Your task to perform on an android device: Go to Reddit.com Image 0: 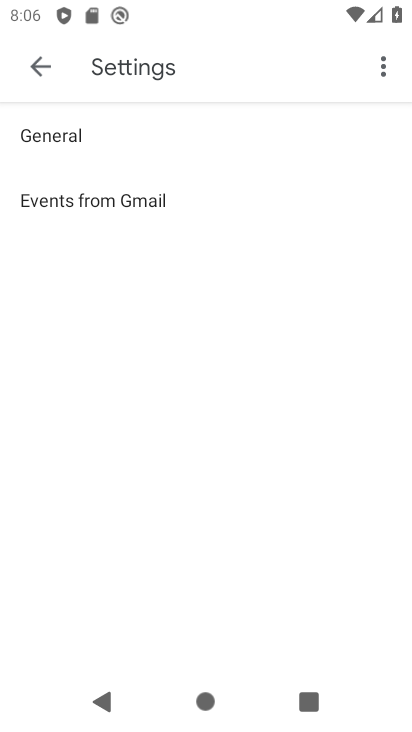
Step 0: press home button
Your task to perform on an android device: Go to Reddit.com Image 1: 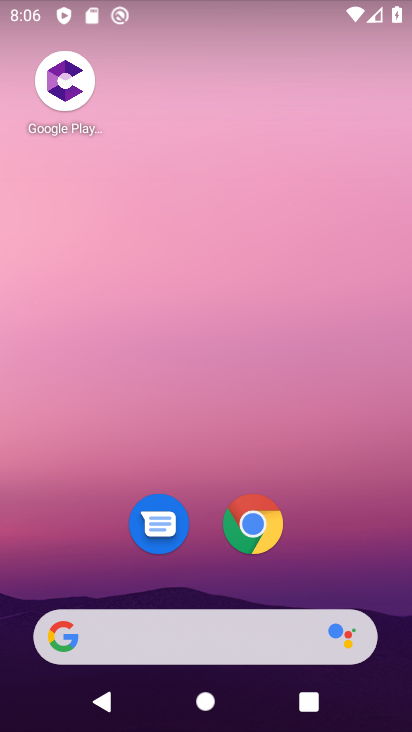
Step 1: click (224, 633)
Your task to perform on an android device: Go to Reddit.com Image 2: 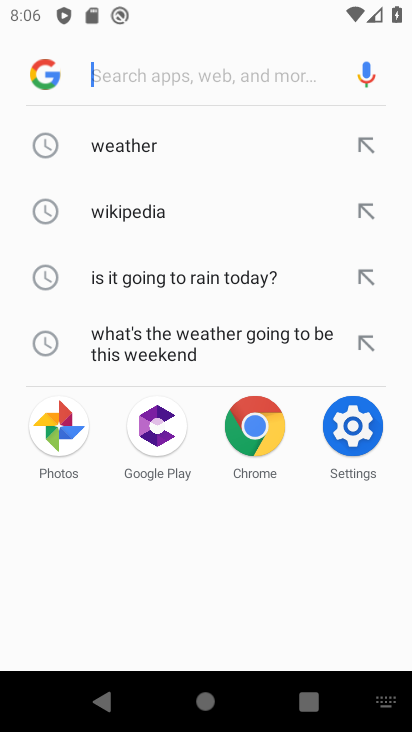
Step 2: type "reddit.com"
Your task to perform on an android device: Go to Reddit.com Image 3: 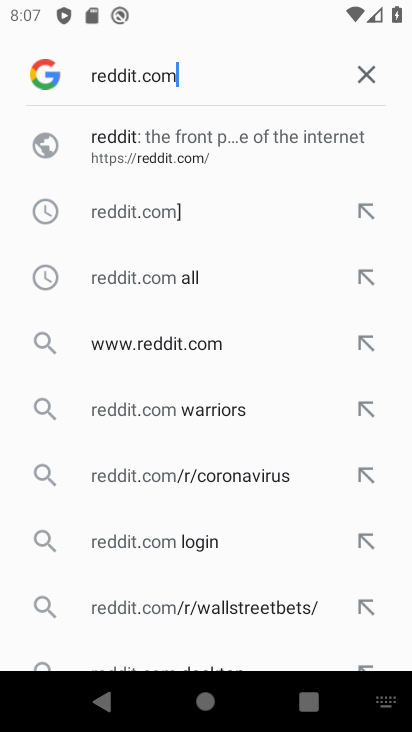
Step 3: click (192, 68)
Your task to perform on an android device: Go to Reddit.com Image 4: 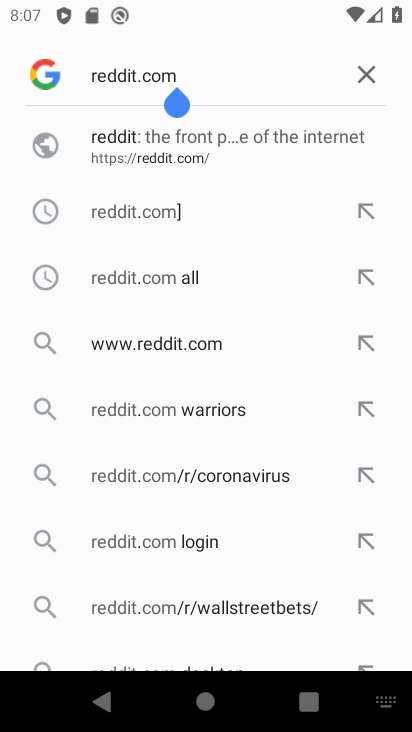
Step 4: click (104, 147)
Your task to perform on an android device: Go to Reddit.com Image 5: 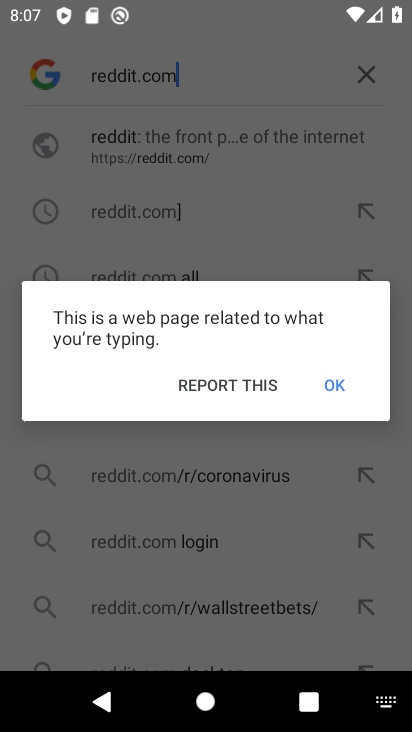
Step 5: click (336, 384)
Your task to perform on an android device: Go to Reddit.com Image 6: 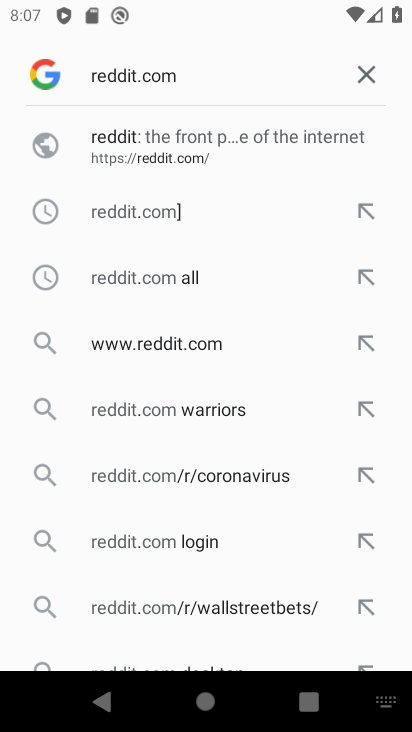
Step 6: click (120, 136)
Your task to perform on an android device: Go to Reddit.com Image 7: 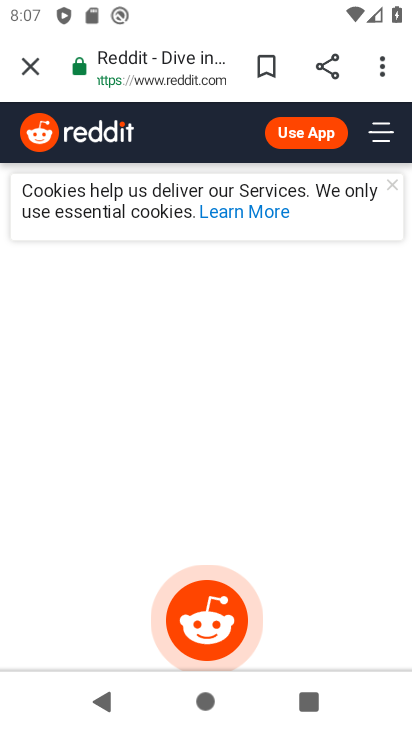
Step 7: task complete